Your task to perform on an android device: Toggle the flashlight Image 0: 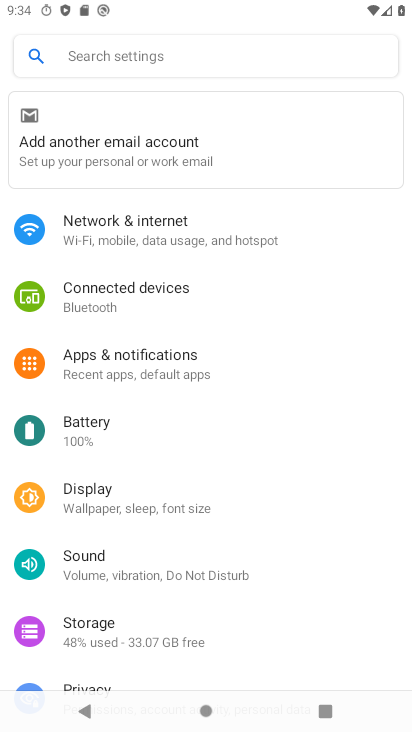
Step 0: task impossible